Your task to perform on an android device: Show me recent news Image 0: 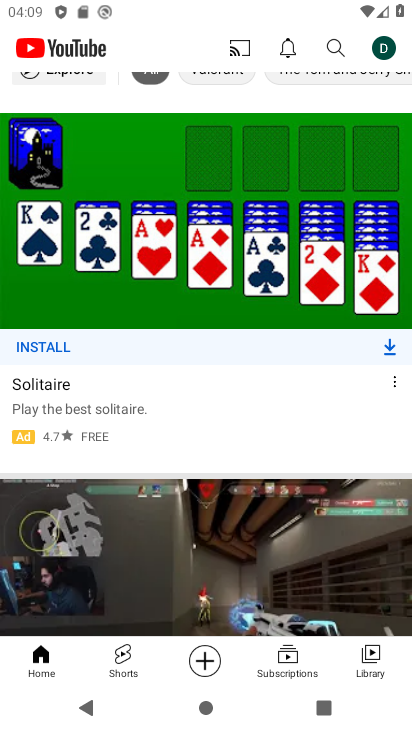
Step 0: press home button
Your task to perform on an android device: Show me recent news Image 1: 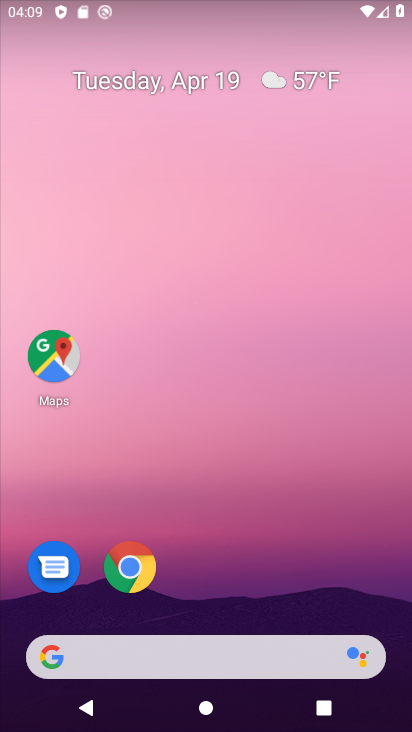
Step 1: task complete